Your task to perform on an android device: allow cookies in the chrome app Image 0: 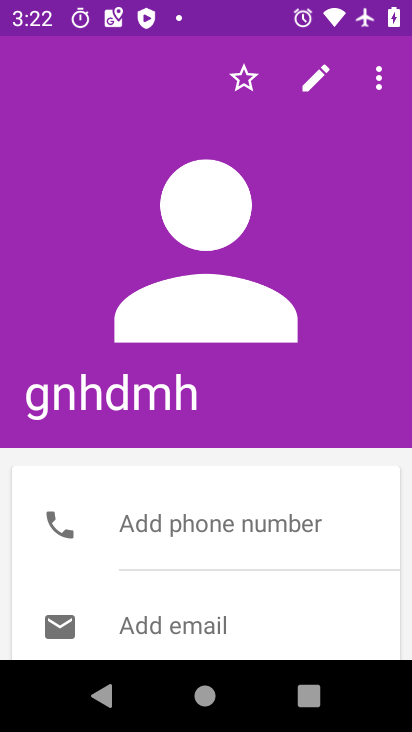
Step 0: press home button
Your task to perform on an android device: allow cookies in the chrome app Image 1: 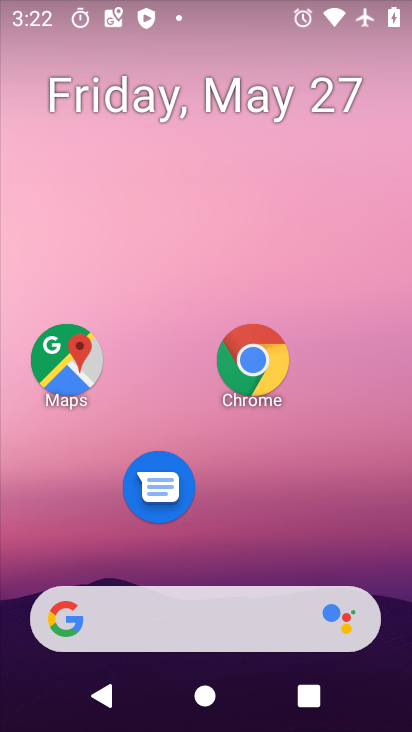
Step 1: drag from (250, 541) to (292, 108)
Your task to perform on an android device: allow cookies in the chrome app Image 2: 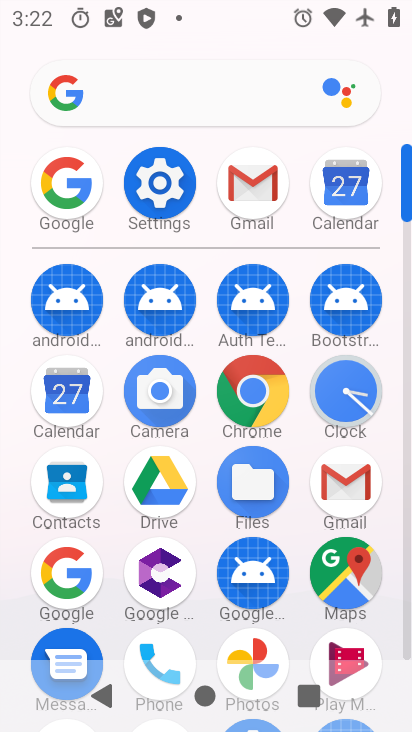
Step 2: click (265, 391)
Your task to perform on an android device: allow cookies in the chrome app Image 3: 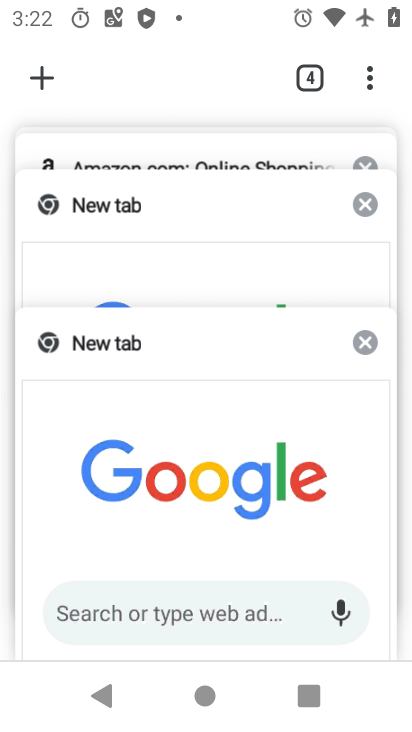
Step 3: click (357, 73)
Your task to perform on an android device: allow cookies in the chrome app Image 4: 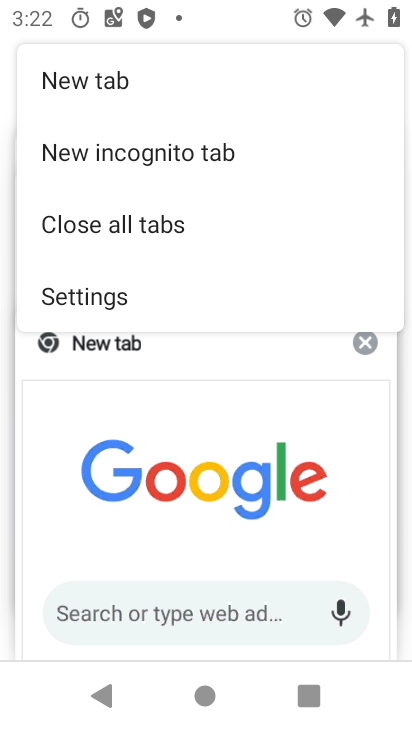
Step 4: click (98, 299)
Your task to perform on an android device: allow cookies in the chrome app Image 5: 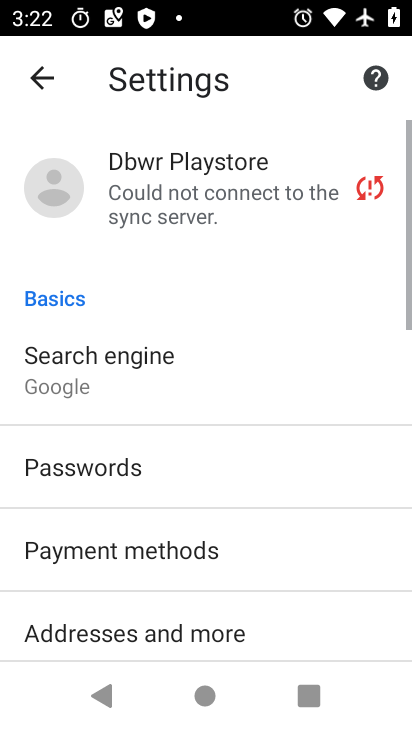
Step 5: drag from (239, 523) to (247, 120)
Your task to perform on an android device: allow cookies in the chrome app Image 6: 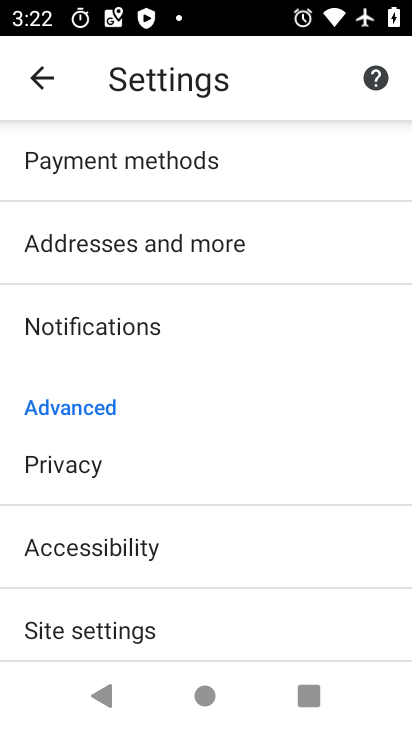
Step 6: click (158, 618)
Your task to perform on an android device: allow cookies in the chrome app Image 7: 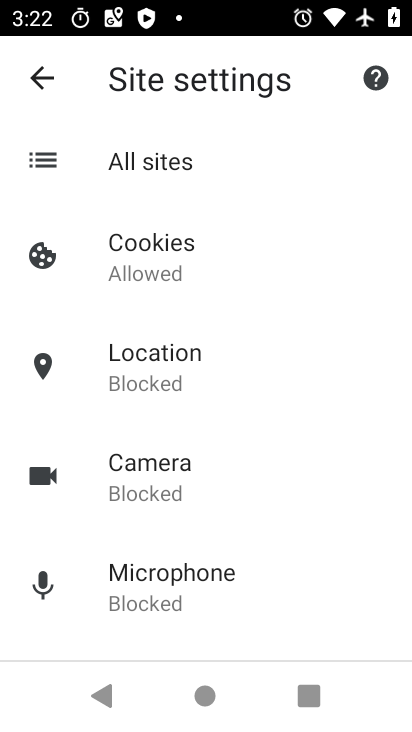
Step 7: click (168, 247)
Your task to perform on an android device: allow cookies in the chrome app Image 8: 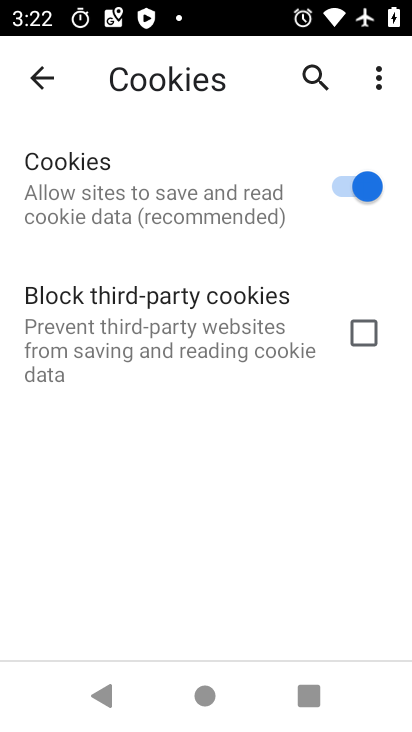
Step 8: task complete